Your task to perform on an android device: open a bookmark in the chrome app Image 0: 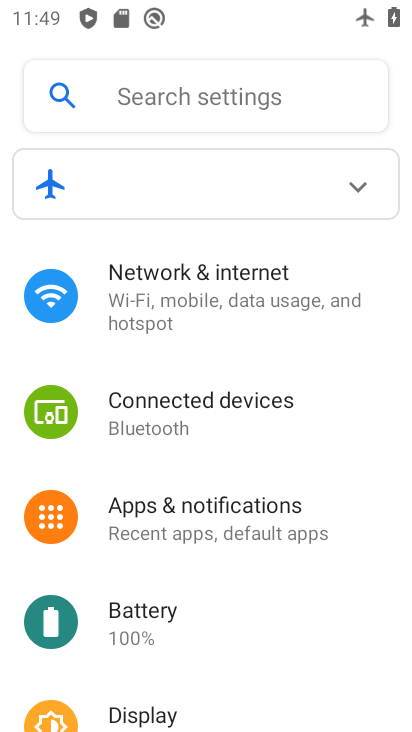
Step 0: press home button
Your task to perform on an android device: open a bookmark in the chrome app Image 1: 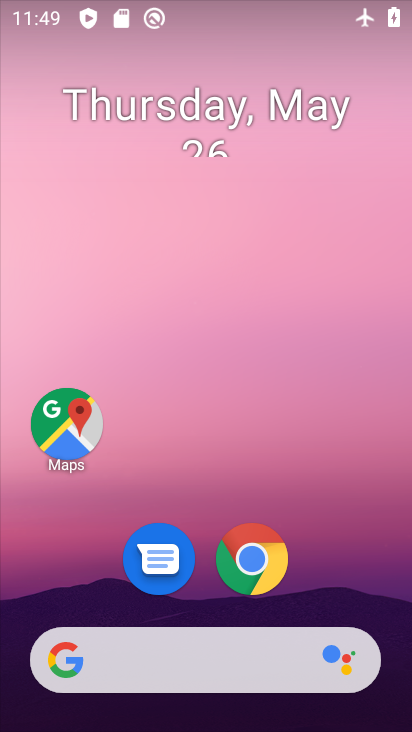
Step 1: click (242, 547)
Your task to perform on an android device: open a bookmark in the chrome app Image 2: 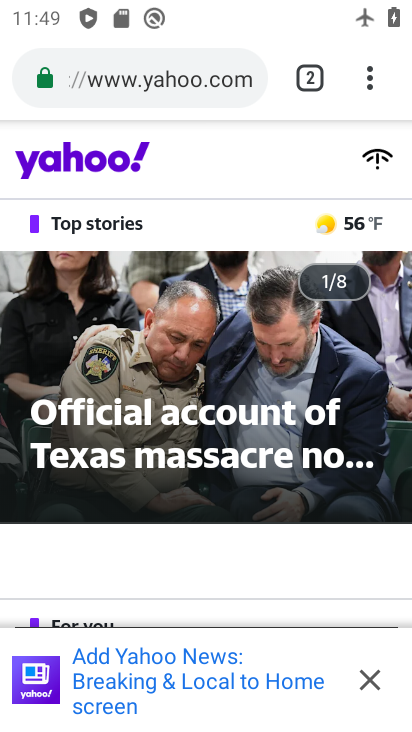
Step 2: click (373, 57)
Your task to perform on an android device: open a bookmark in the chrome app Image 3: 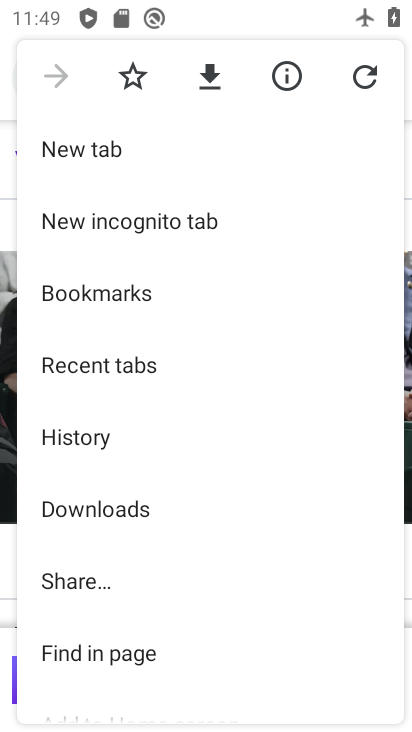
Step 3: click (204, 298)
Your task to perform on an android device: open a bookmark in the chrome app Image 4: 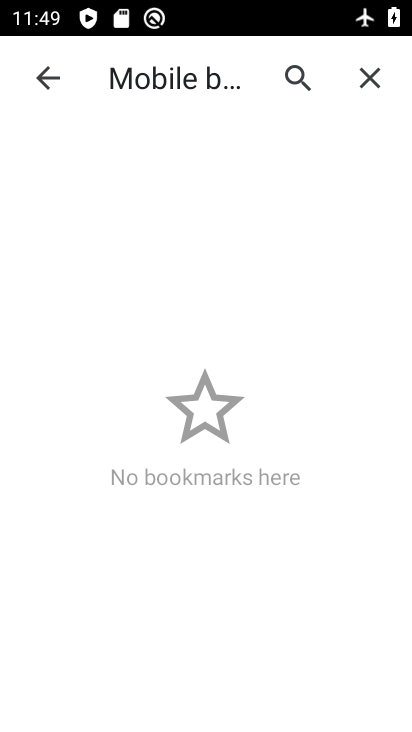
Step 4: task complete